Your task to perform on an android device: Open settings on Google Maps Image 0: 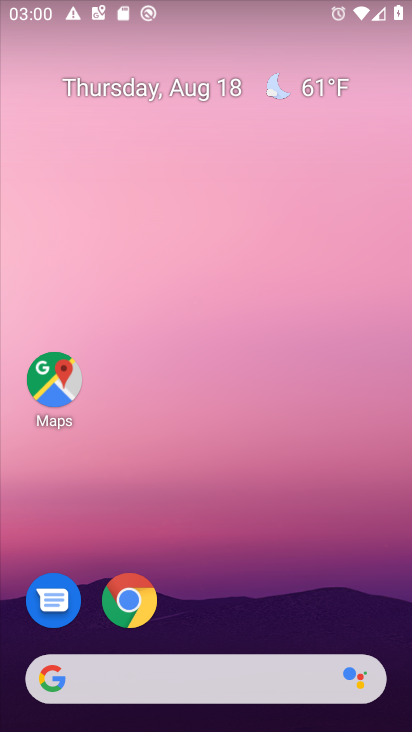
Step 0: press home button
Your task to perform on an android device: Open settings on Google Maps Image 1: 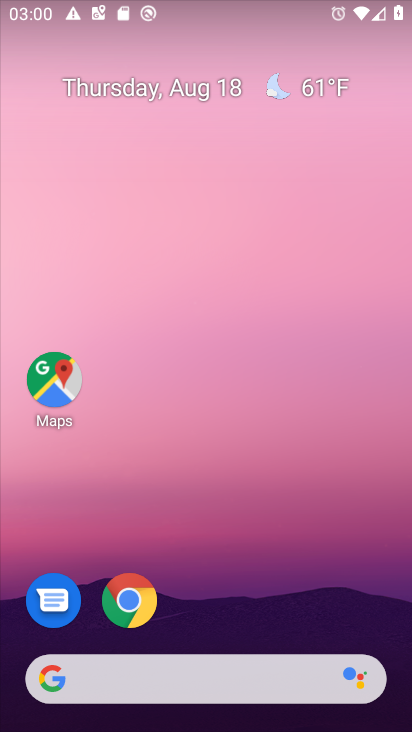
Step 1: click (40, 397)
Your task to perform on an android device: Open settings on Google Maps Image 2: 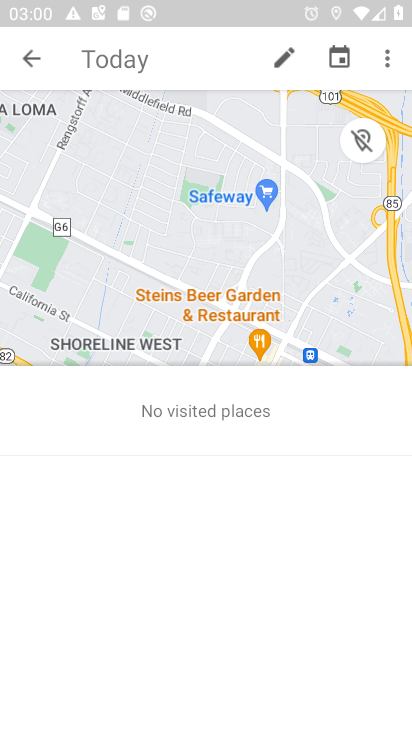
Step 2: press back button
Your task to perform on an android device: Open settings on Google Maps Image 3: 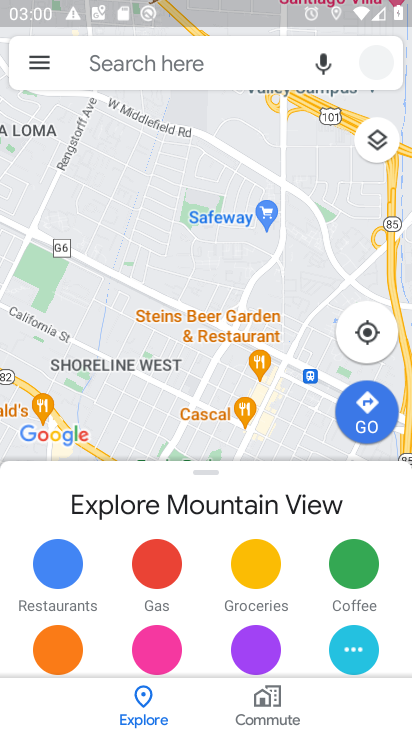
Step 3: click (45, 67)
Your task to perform on an android device: Open settings on Google Maps Image 4: 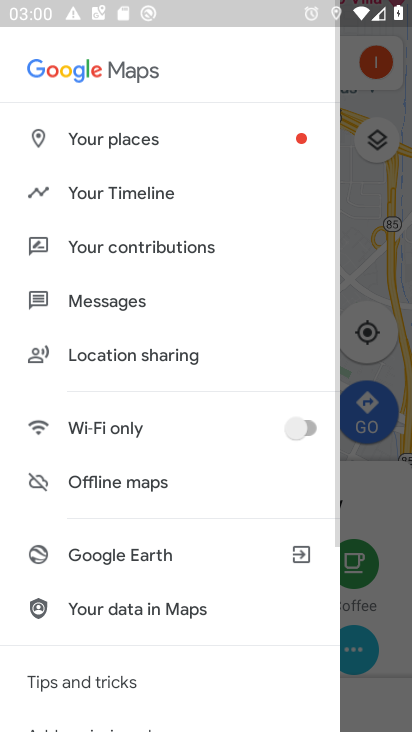
Step 4: drag from (231, 646) to (192, 158)
Your task to perform on an android device: Open settings on Google Maps Image 5: 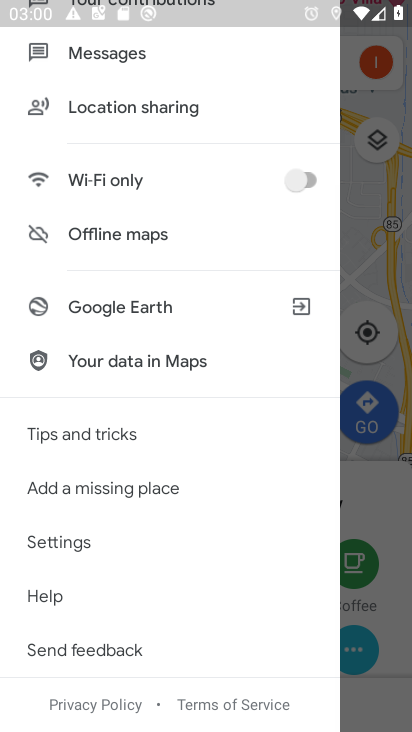
Step 5: click (69, 544)
Your task to perform on an android device: Open settings on Google Maps Image 6: 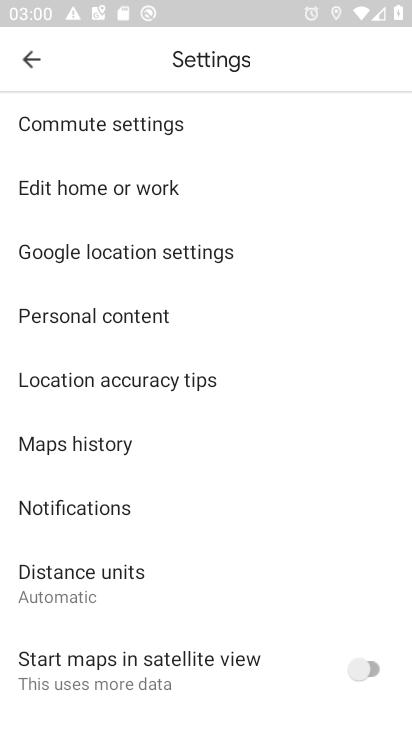
Step 6: task complete